Your task to perform on an android device: toggle sleep mode Image 0: 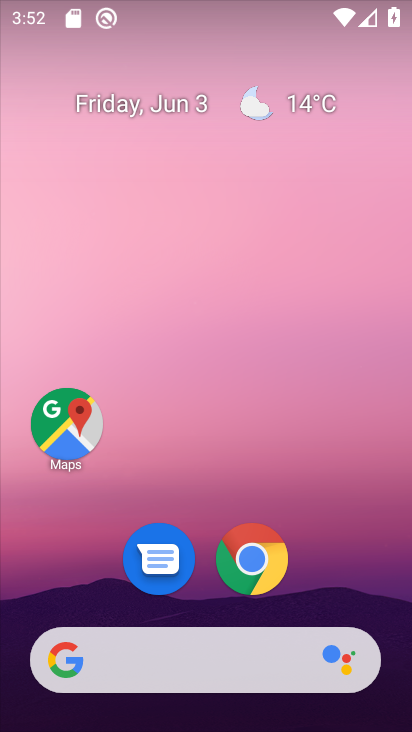
Step 0: click (167, 94)
Your task to perform on an android device: toggle sleep mode Image 1: 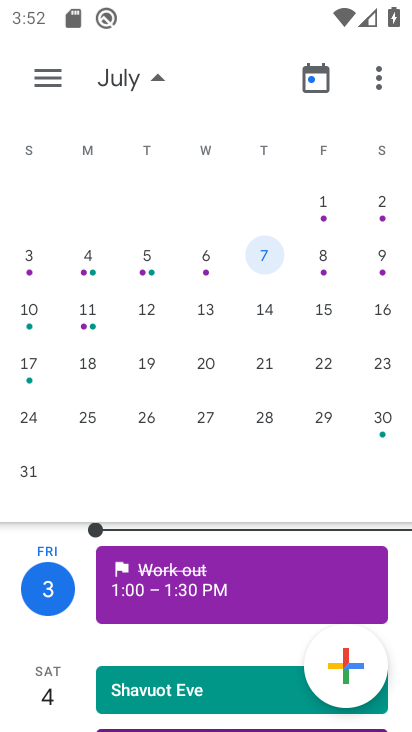
Step 1: press back button
Your task to perform on an android device: toggle sleep mode Image 2: 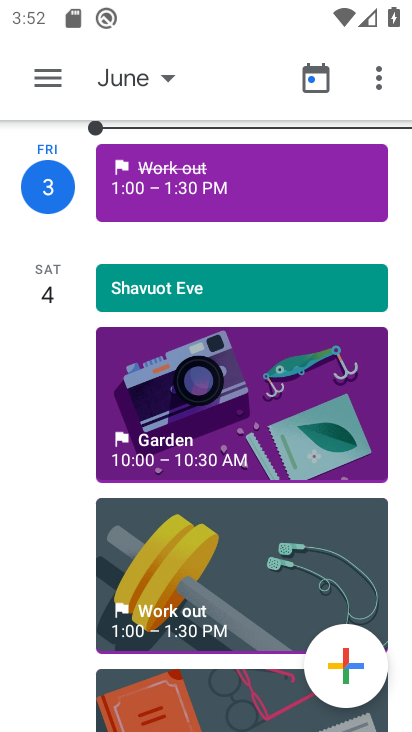
Step 2: press home button
Your task to perform on an android device: toggle sleep mode Image 3: 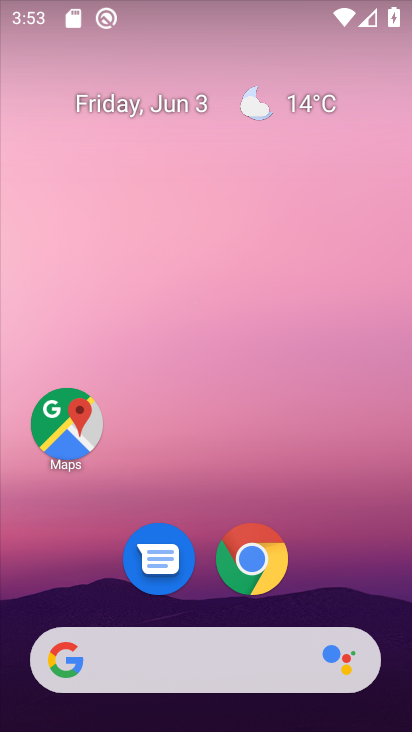
Step 3: click (184, 135)
Your task to perform on an android device: toggle sleep mode Image 4: 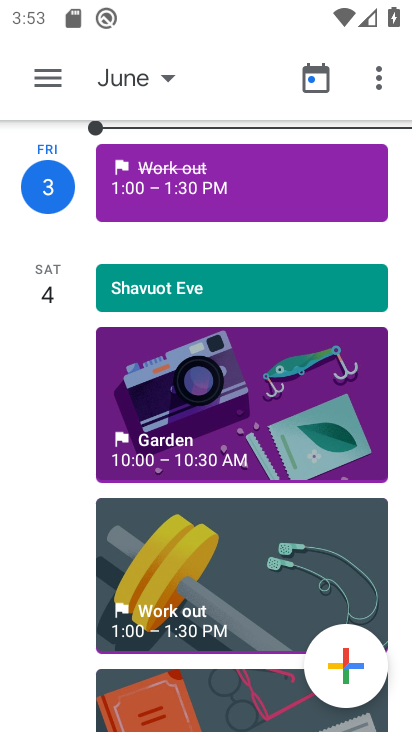
Step 4: press back button
Your task to perform on an android device: toggle sleep mode Image 5: 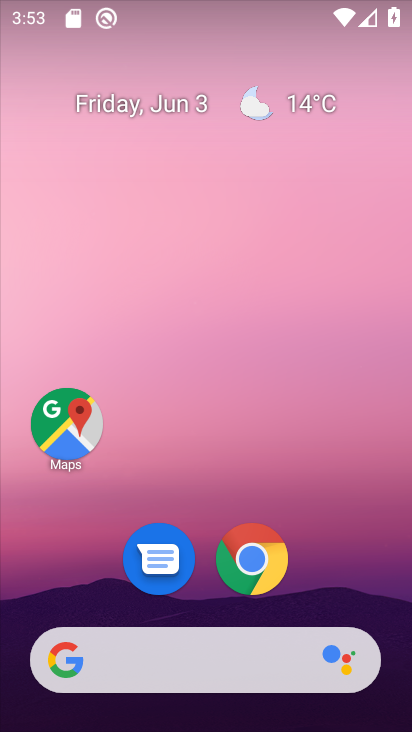
Step 5: drag from (245, 695) to (204, 112)
Your task to perform on an android device: toggle sleep mode Image 6: 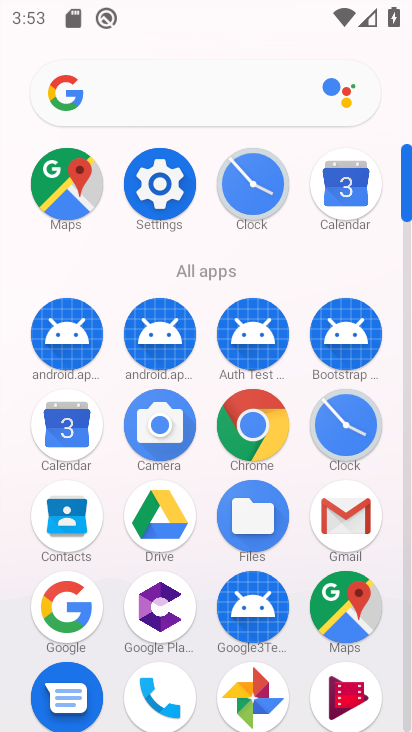
Step 6: click (158, 191)
Your task to perform on an android device: toggle sleep mode Image 7: 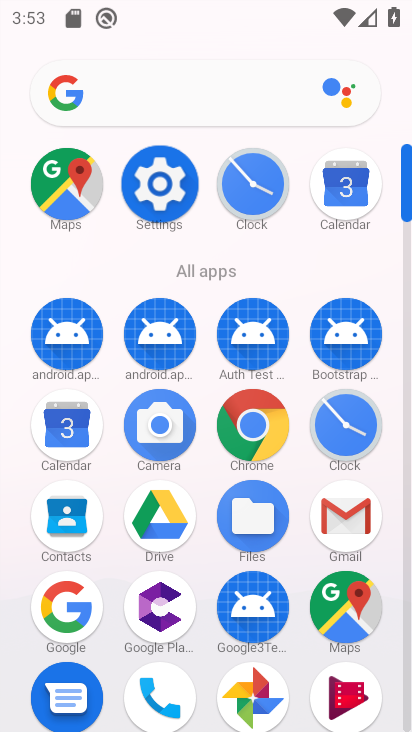
Step 7: click (158, 191)
Your task to perform on an android device: toggle sleep mode Image 8: 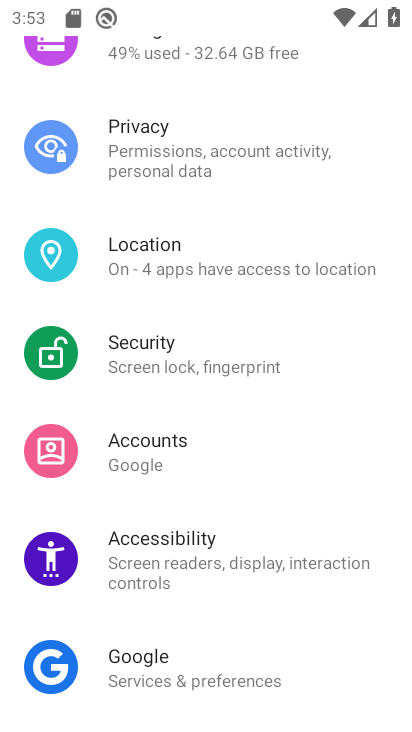
Step 8: drag from (142, 149) to (134, 513)
Your task to perform on an android device: toggle sleep mode Image 9: 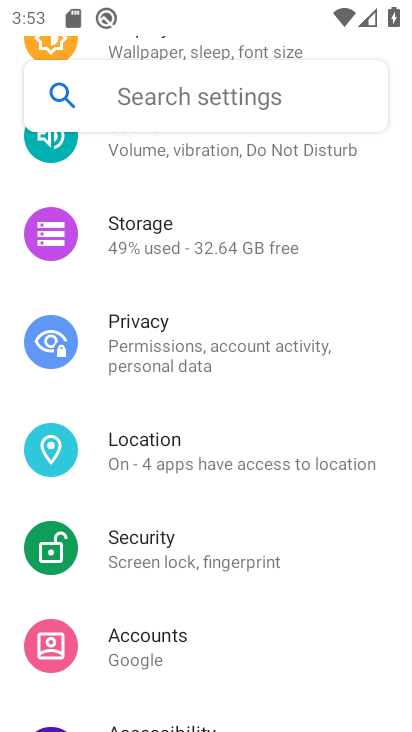
Step 9: drag from (144, 219) to (139, 652)
Your task to perform on an android device: toggle sleep mode Image 10: 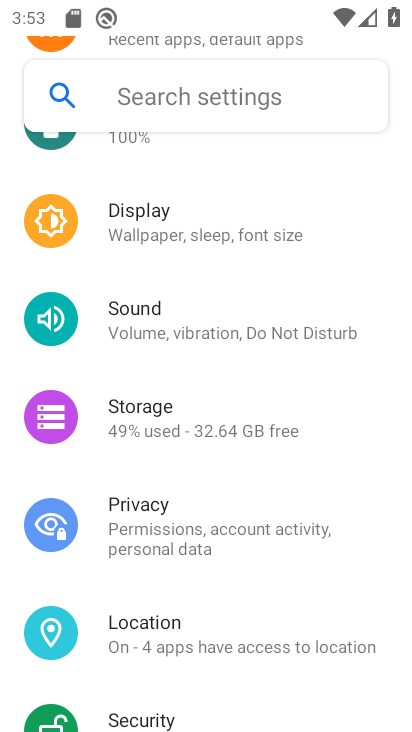
Step 10: drag from (162, 301) to (231, 658)
Your task to perform on an android device: toggle sleep mode Image 11: 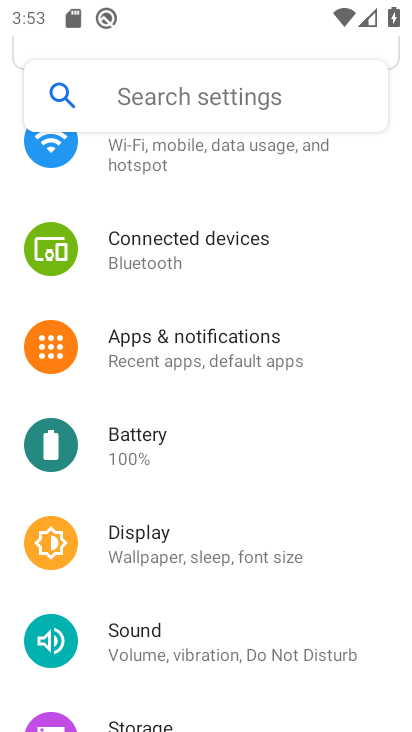
Step 11: drag from (220, 322) to (234, 618)
Your task to perform on an android device: toggle sleep mode Image 12: 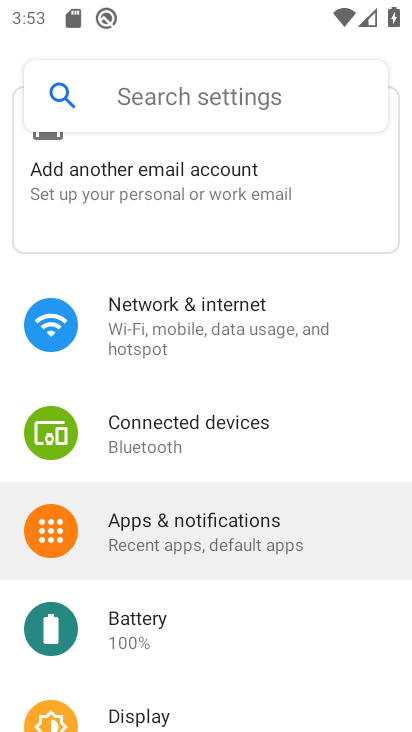
Step 12: drag from (187, 361) to (189, 599)
Your task to perform on an android device: toggle sleep mode Image 13: 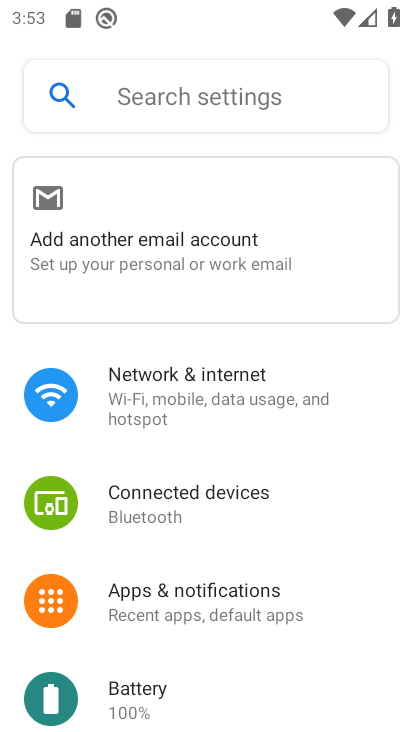
Step 13: drag from (199, 630) to (234, 235)
Your task to perform on an android device: toggle sleep mode Image 14: 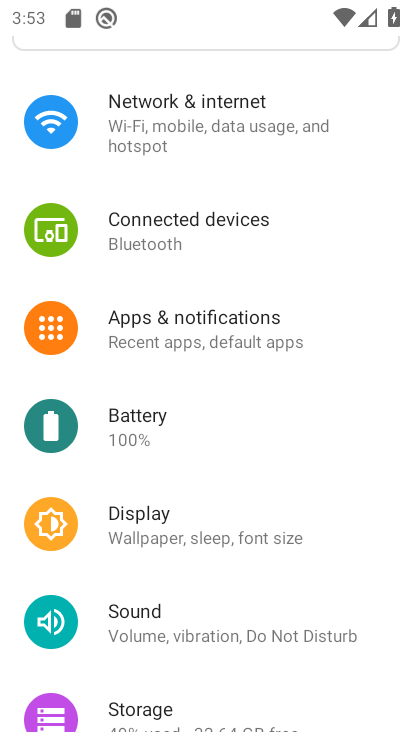
Step 14: click (154, 121)
Your task to perform on an android device: toggle sleep mode Image 15: 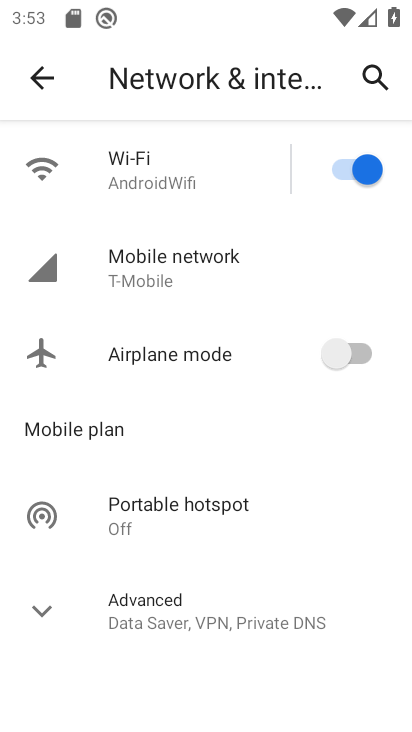
Step 15: click (39, 74)
Your task to perform on an android device: toggle sleep mode Image 16: 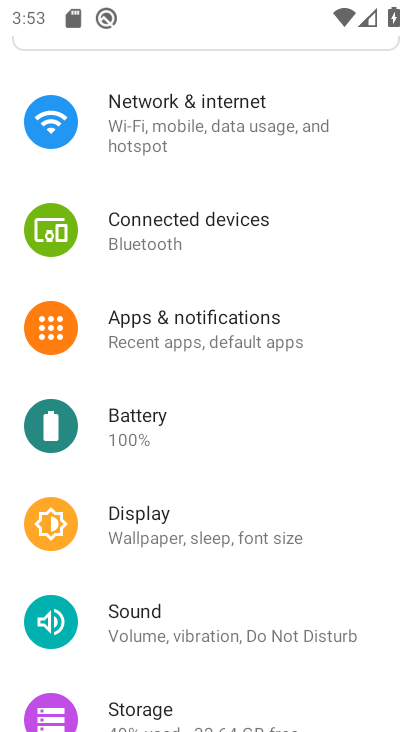
Step 16: click (133, 539)
Your task to perform on an android device: toggle sleep mode Image 17: 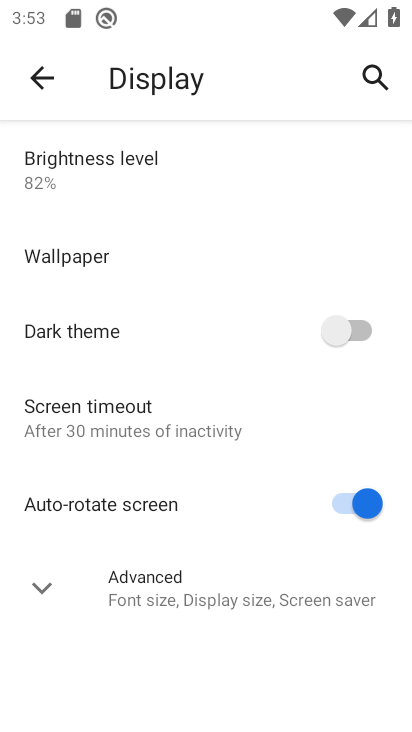
Step 17: click (108, 415)
Your task to perform on an android device: toggle sleep mode Image 18: 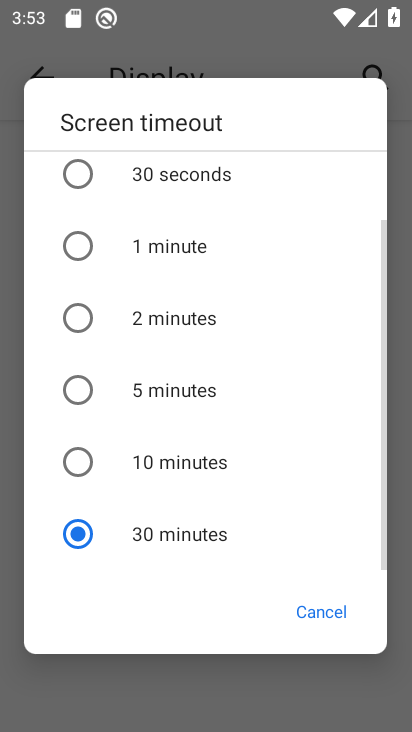
Step 18: click (82, 393)
Your task to perform on an android device: toggle sleep mode Image 19: 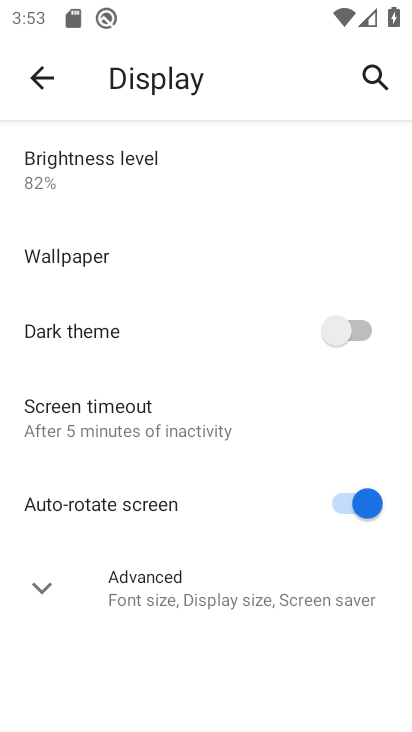
Step 19: task complete